Your task to perform on an android device: change timer sound Image 0: 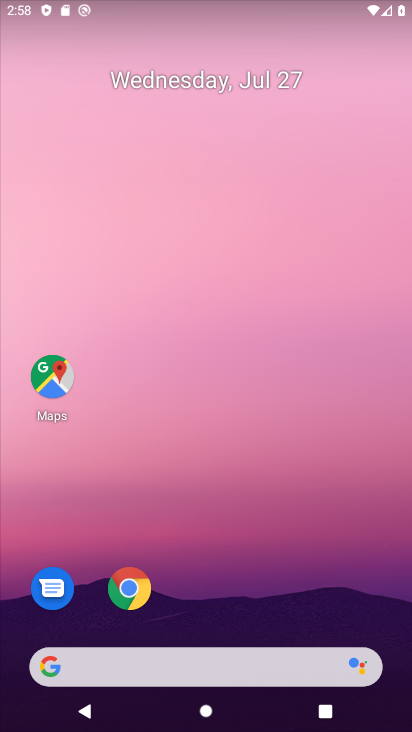
Step 0: drag from (225, 595) to (212, 119)
Your task to perform on an android device: change timer sound Image 1: 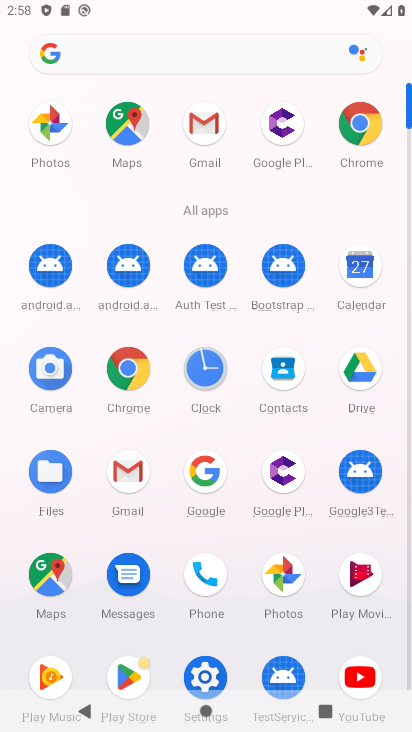
Step 1: click (204, 360)
Your task to perform on an android device: change timer sound Image 2: 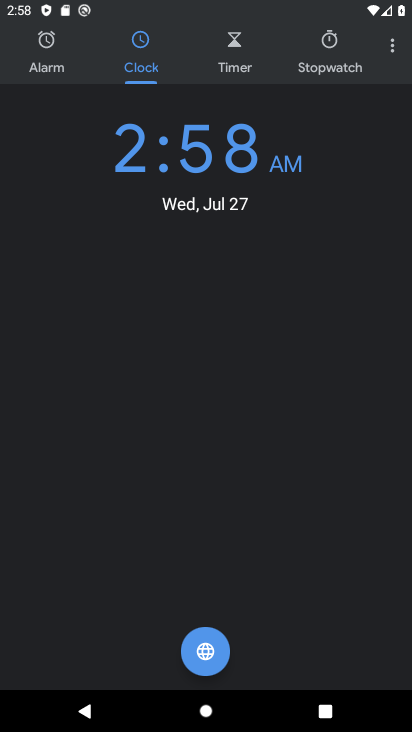
Step 2: click (399, 42)
Your task to perform on an android device: change timer sound Image 3: 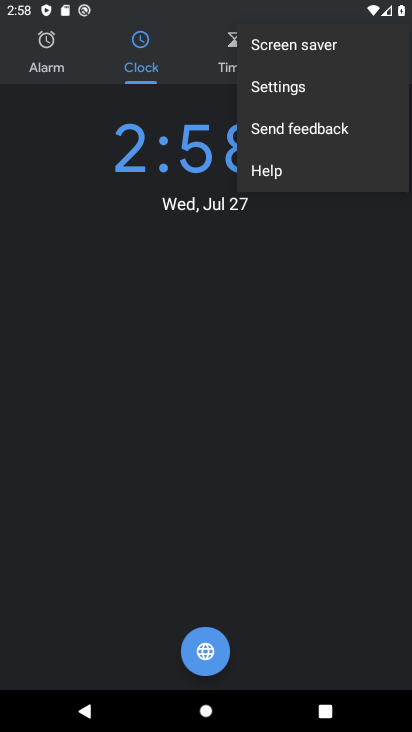
Step 3: click (360, 76)
Your task to perform on an android device: change timer sound Image 4: 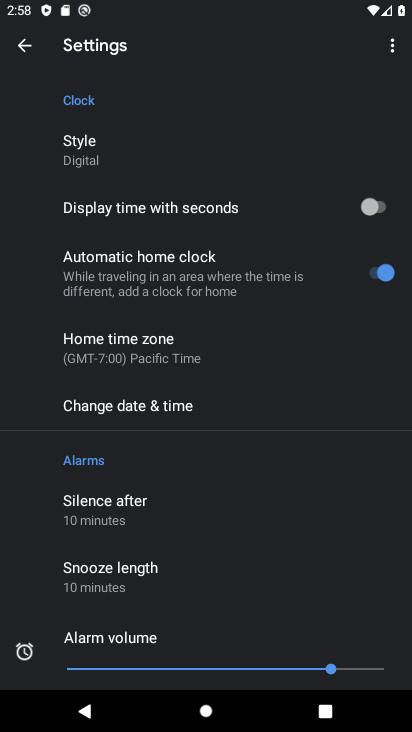
Step 4: drag from (162, 610) to (179, 6)
Your task to perform on an android device: change timer sound Image 5: 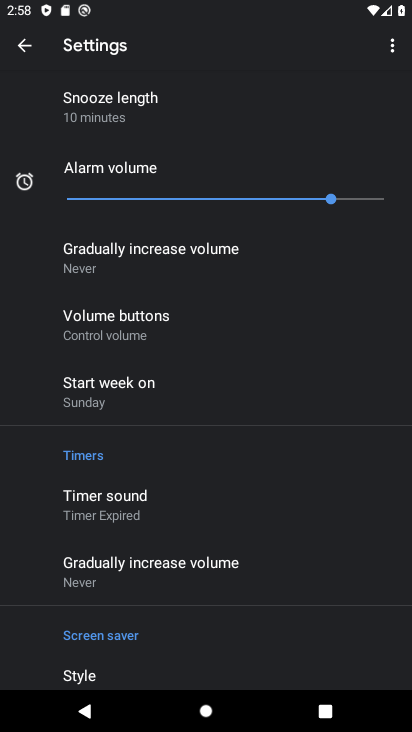
Step 5: click (157, 502)
Your task to perform on an android device: change timer sound Image 6: 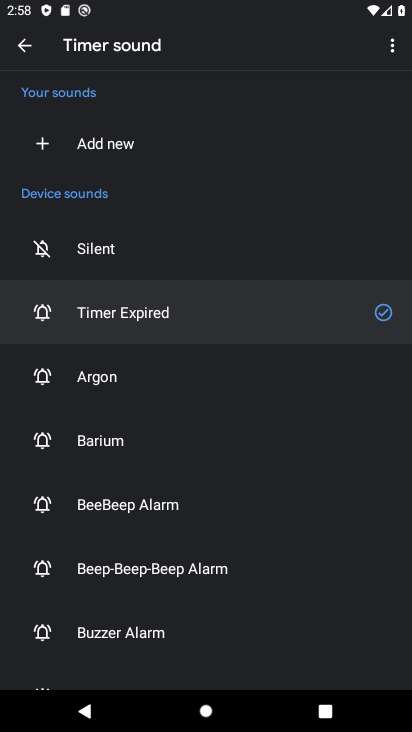
Step 6: click (257, 590)
Your task to perform on an android device: change timer sound Image 7: 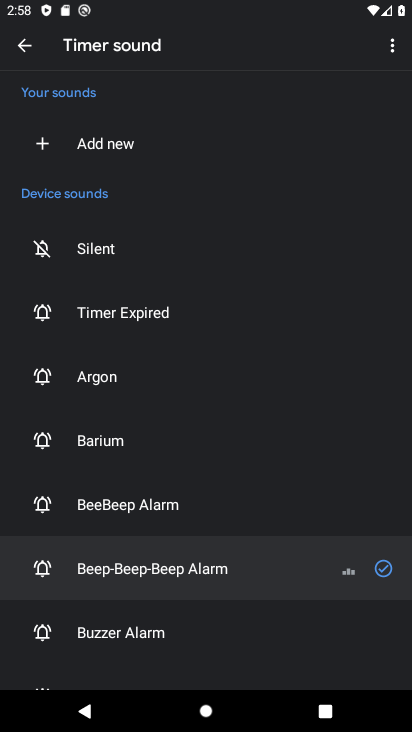
Step 7: task complete